Your task to perform on an android device: Go to ESPN.com Image 0: 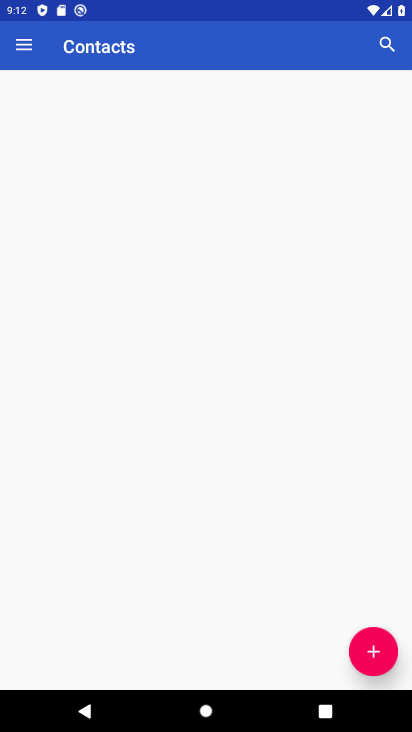
Step 0: press home button
Your task to perform on an android device: Go to ESPN.com Image 1: 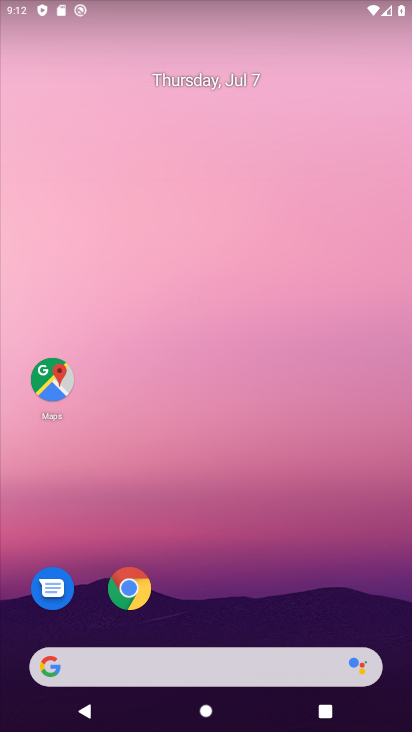
Step 1: click (137, 602)
Your task to perform on an android device: Go to ESPN.com Image 2: 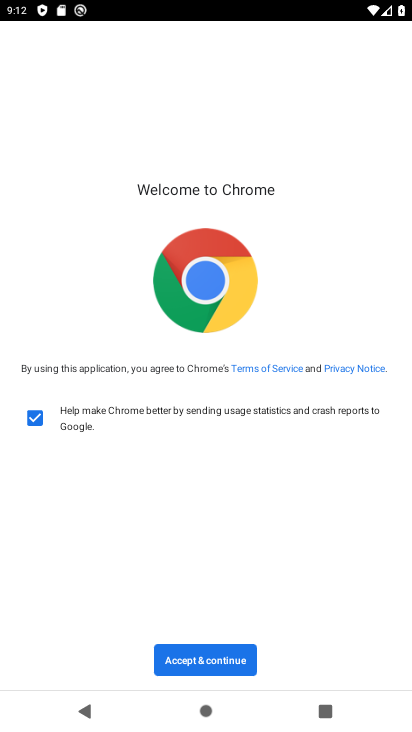
Step 2: click (213, 650)
Your task to perform on an android device: Go to ESPN.com Image 3: 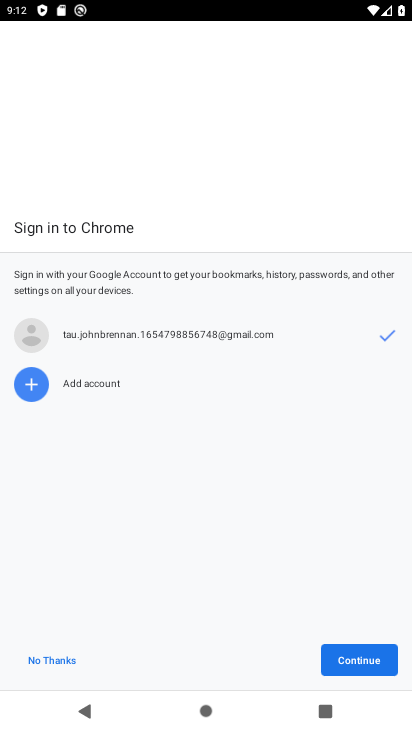
Step 3: click (367, 654)
Your task to perform on an android device: Go to ESPN.com Image 4: 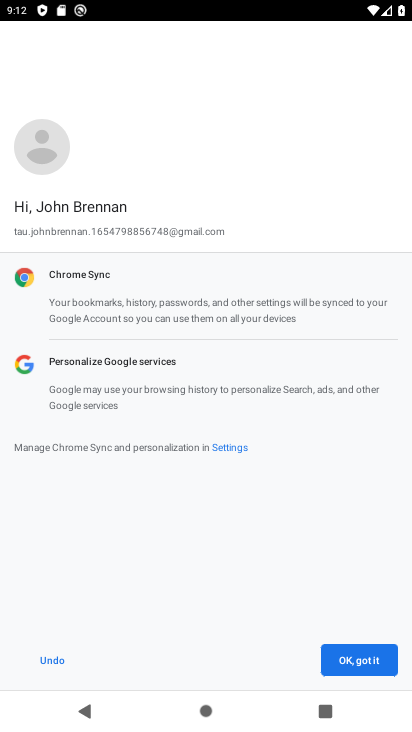
Step 4: click (367, 654)
Your task to perform on an android device: Go to ESPN.com Image 5: 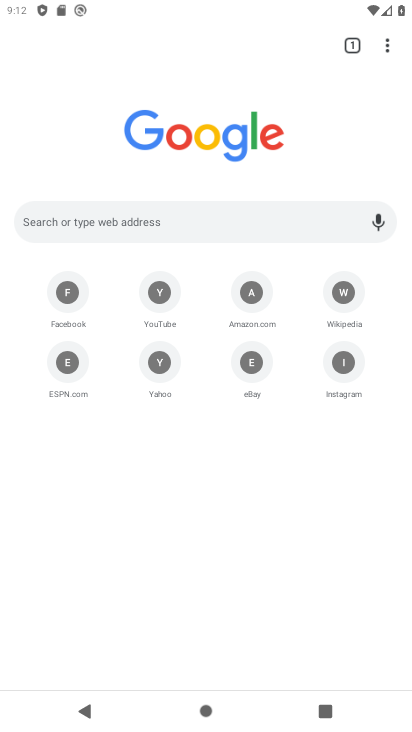
Step 5: click (392, 49)
Your task to perform on an android device: Go to ESPN.com Image 6: 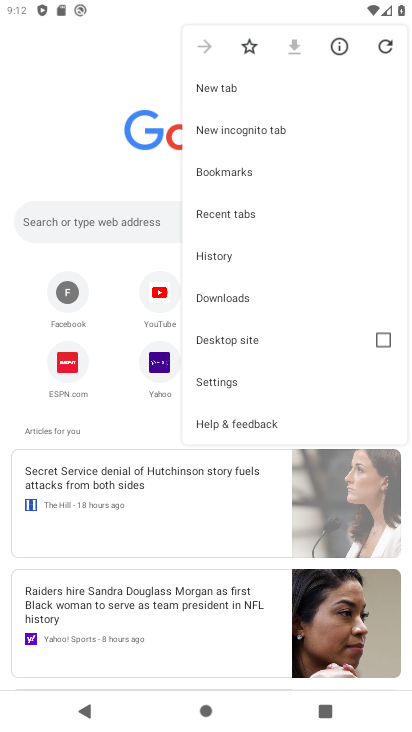
Step 6: click (60, 363)
Your task to perform on an android device: Go to ESPN.com Image 7: 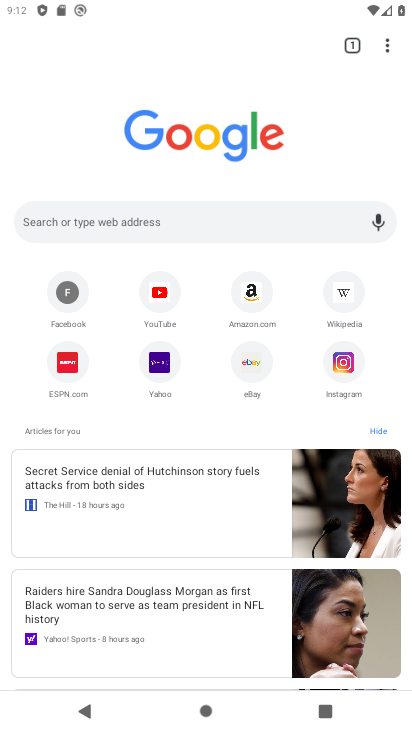
Step 7: click (60, 363)
Your task to perform on an android device: Go to ESPN.com Image 8: 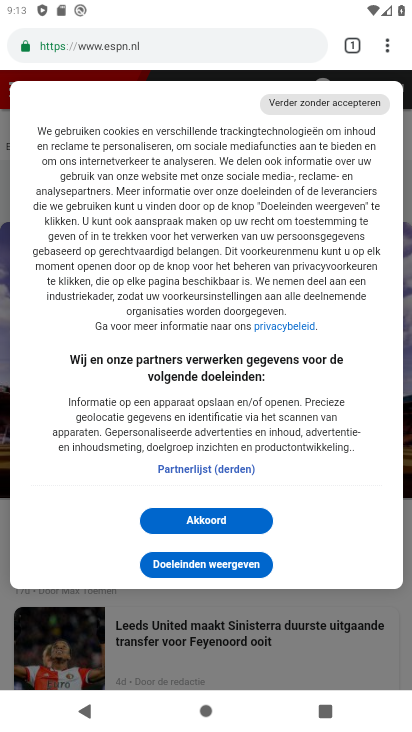
Step 8: click (203, 515)
Your task to perform on an android device: Go to ESPN.com Image 9: 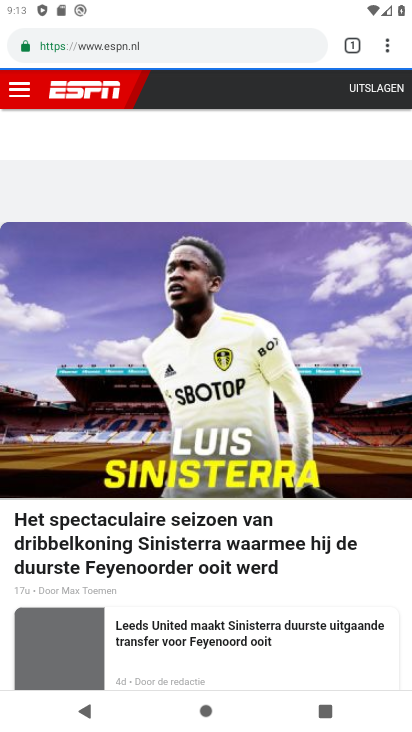
Step 9: task complete